Your task to perform on an android device: turn off smart reply in the gmail app Image 0: 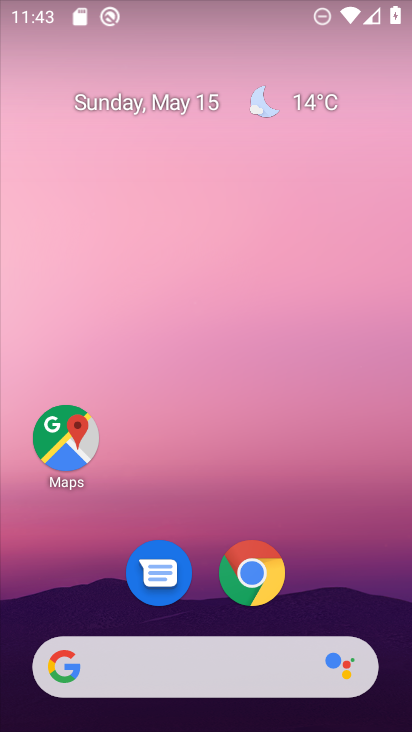
Step 0: drag from (284, 467) to (177, 74)
Your task to perform on an android device: turn off smart reply in the gmail app Image 1: 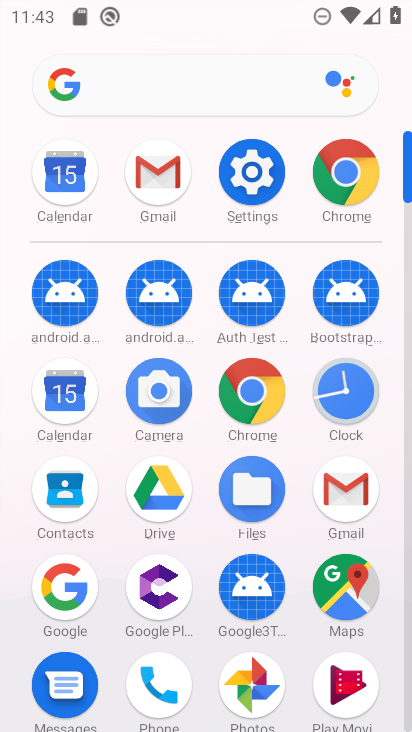
Step 1: click (151, 173)
Your task to perform on an android device: turn off smart reply in the gmail app Image 2: 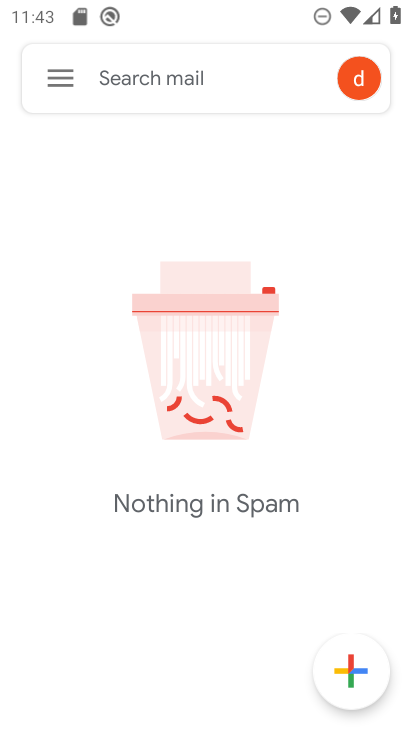
Step 2: click (57, 80)
Your task to perform on an android device: turn off smart reply in the gmail app Image 3: 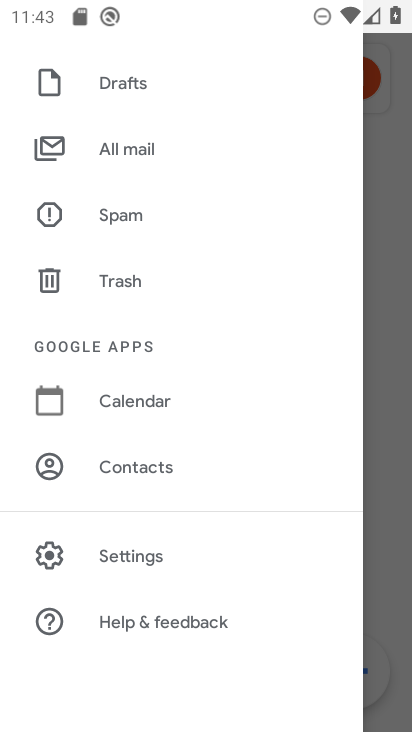
Step 3: click (130, 553)
Your task to perform on an android device: turn off smart reply in the gmail app Image 4: 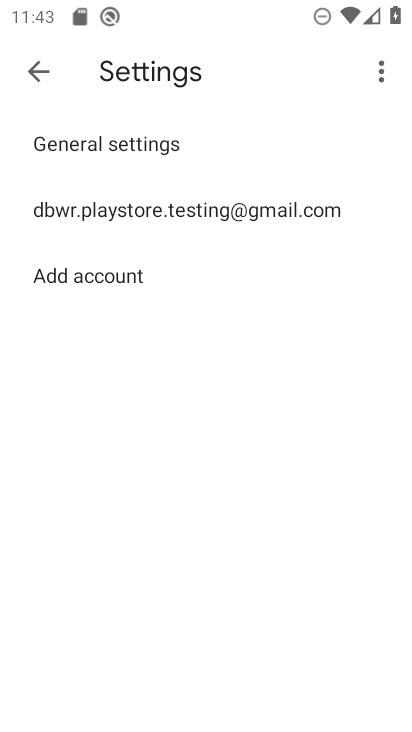
Step 4: click (128, 208)
Your task to perform on an android device: turn off smart reply in the gmail app Image 5: 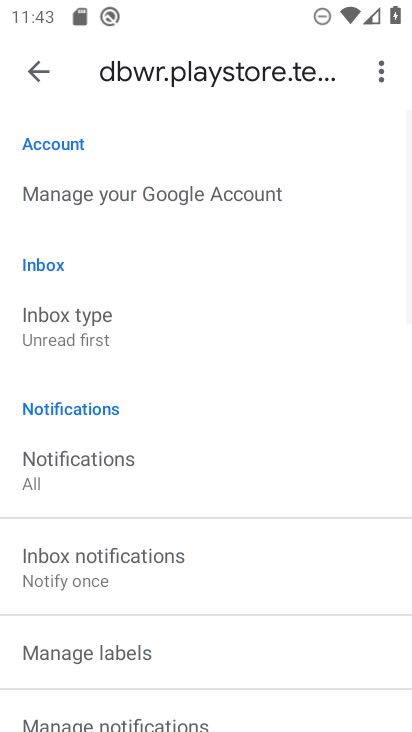
Step 5: drag from (179, 470) to (54, 124)
Your task to perform on an android device: turn off smart reply in the gmail app Image 6: 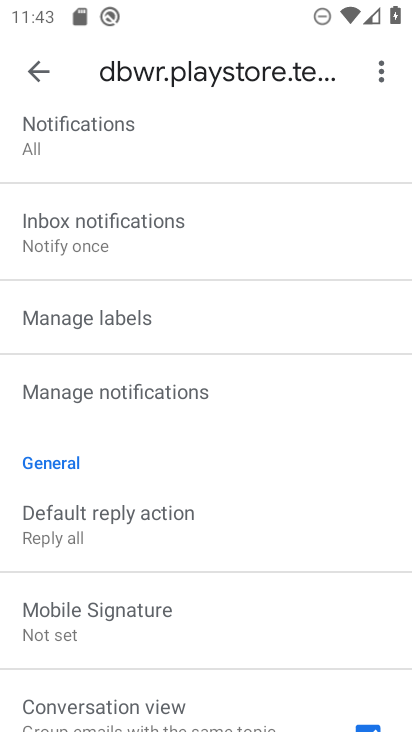
Step 6: drag from (236, 564) to (192, 378)
Your task to perform on an android device: turn off smart reply in the gmail app Image 7: 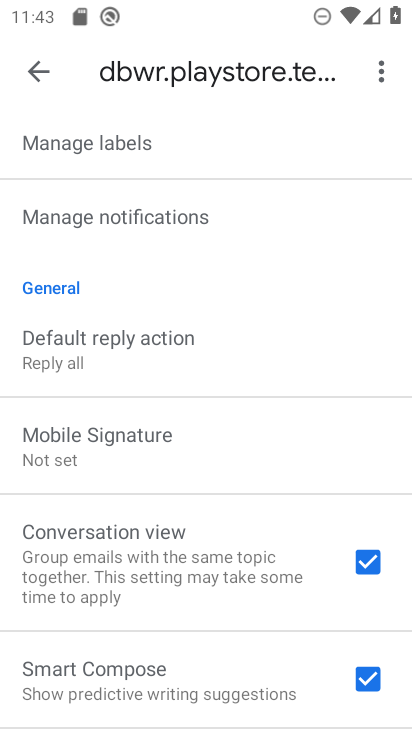
Step 7: drag from (231, 624) to (205, 462)
Your task to perform on an android device: turn off smart reply in the gmail app Image 8: 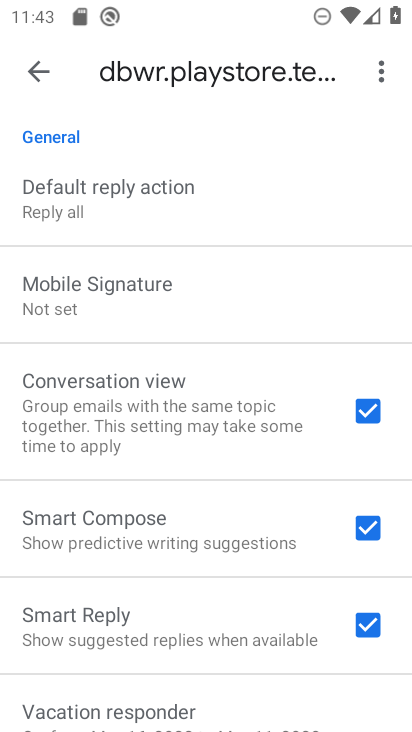
Step 8: click (366, 632)
Your task to perform on an android device: turn off smart reply in the gmail app Image 9: 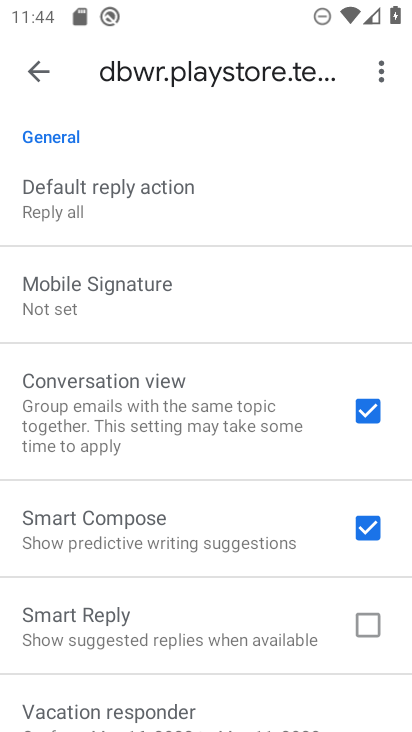
Step 9: task complete